Your task to perform on an android device: Go to ESPN.com Image 0: 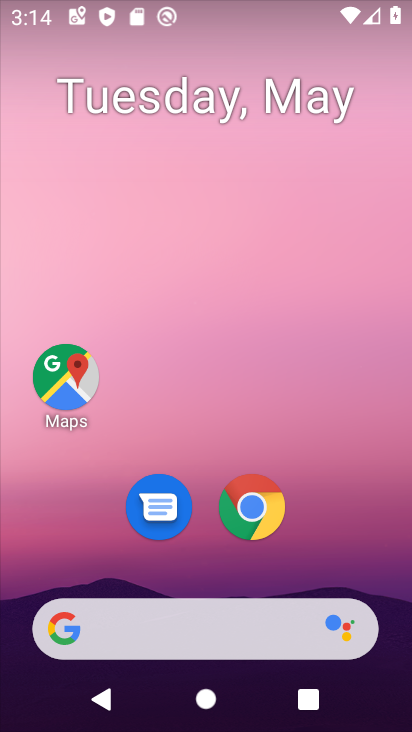
Step 0: click (253, 510)
Your task to perform on an android device: Go to ESPN.com Image 1: 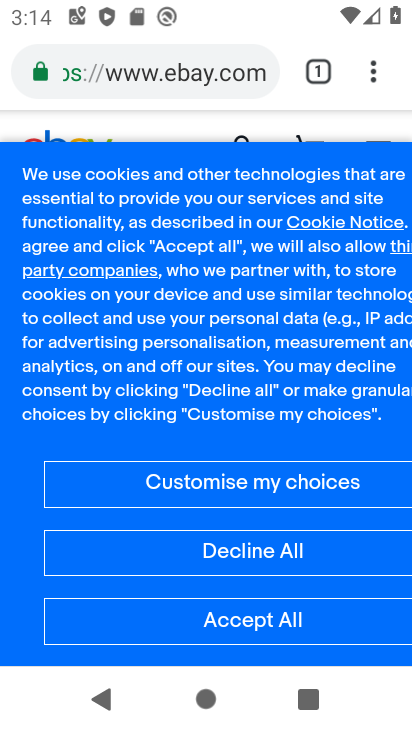
Step 1: click (149, 83)
Your task to perform on an android device: Go to ESPN.com Image 2: 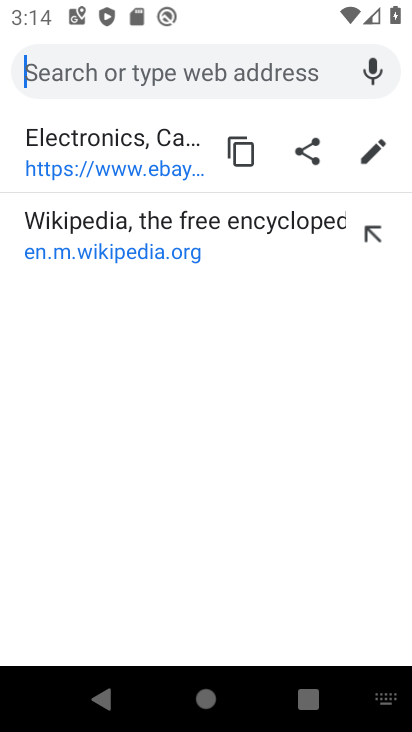
Step 2: type "ESPN.com"
Your task to perform on an android device: Go to ESPN.com Image 3: 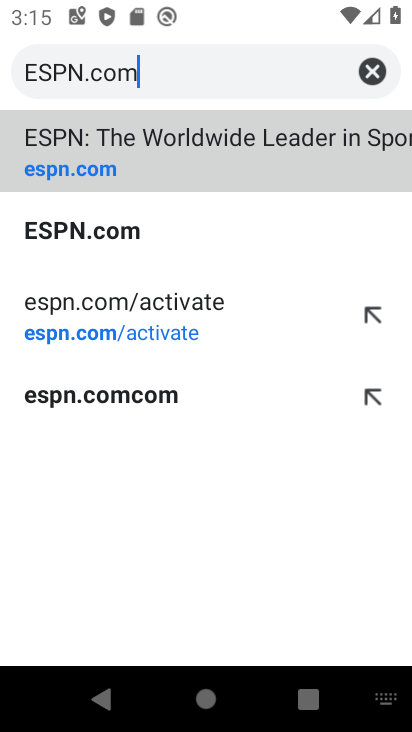
Step 3: click (61, 172)
Your task to perform on an android device: Go to ESPN.com Image 4: 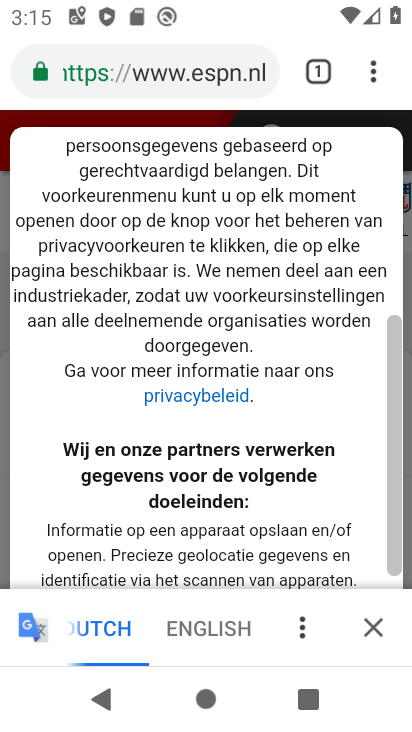
Step 4: task complete